Your task to perform on an android device: Open Google Maps Image 0: 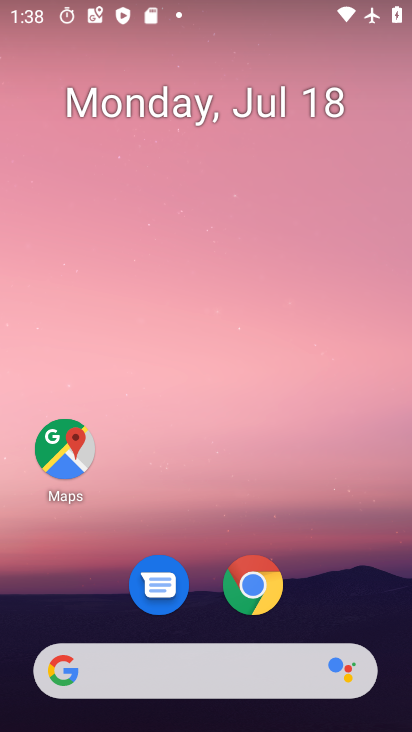
Step 0: click (66, 440)
Your task to perform on an android device: Open Google Maps Image 1: 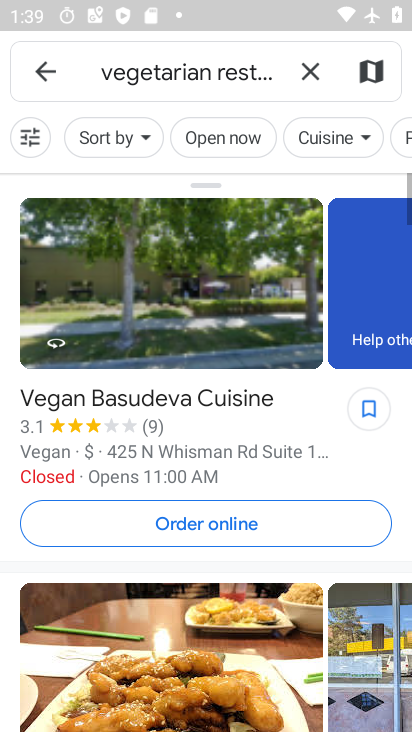
Step 1: click (35, 71)
Your task to perform on an android device: Open Google Maps Image 2: 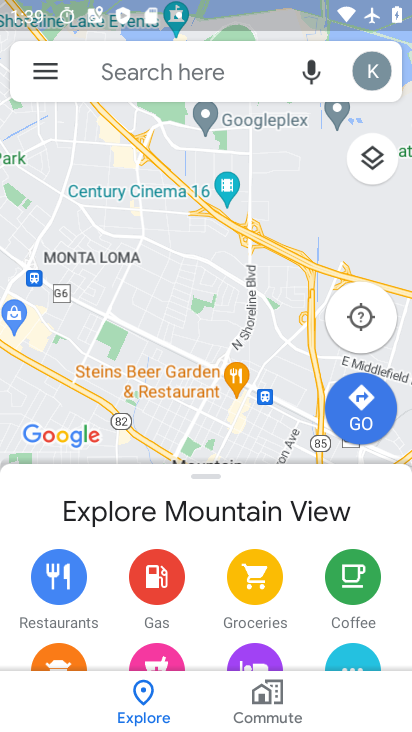
Step 2: task complete